Your task to perform on an android device: Is it going to rain today? Image 0: 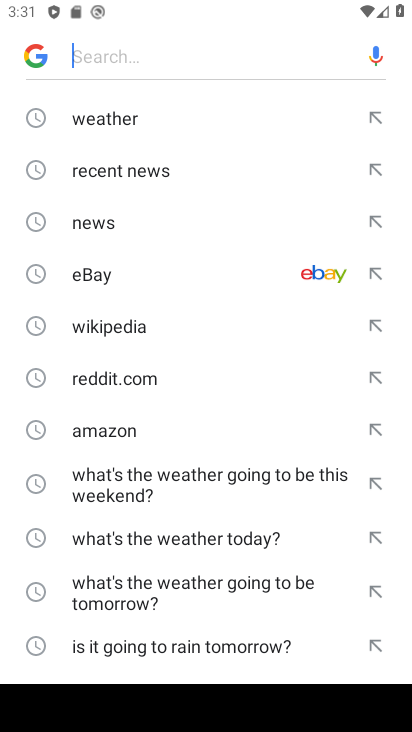
Step 0: click (94, 114)
Your task to perform on an android device: Is it going to rain today? Image 1: 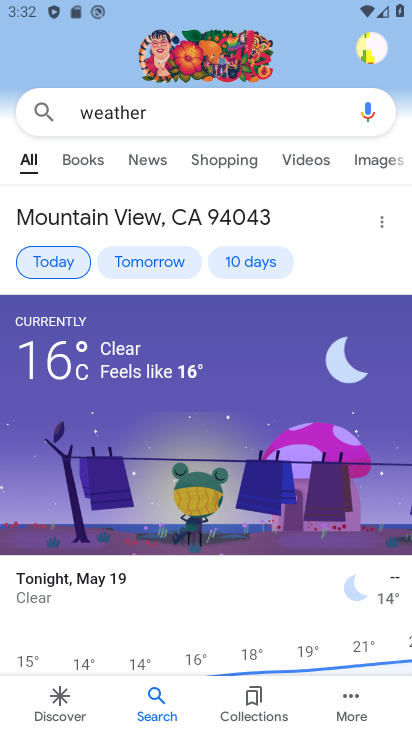
Step 1: task complete